Your task to perform on an android device: Check the news Image 0: 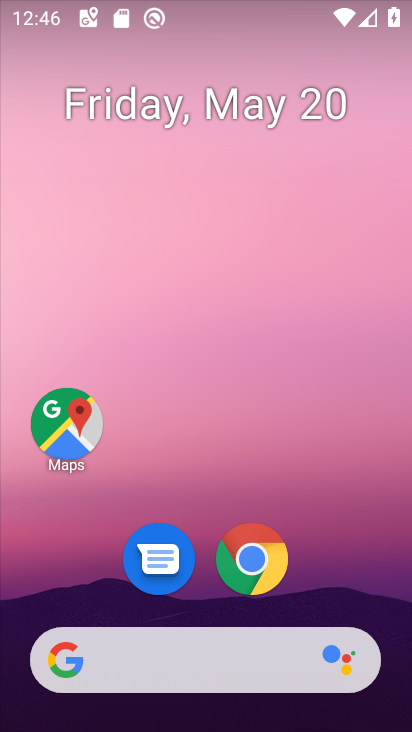
Step 0: drag from (316, 546) to (367, 99)
Your task to perform on an android device: Check the news Image 1: 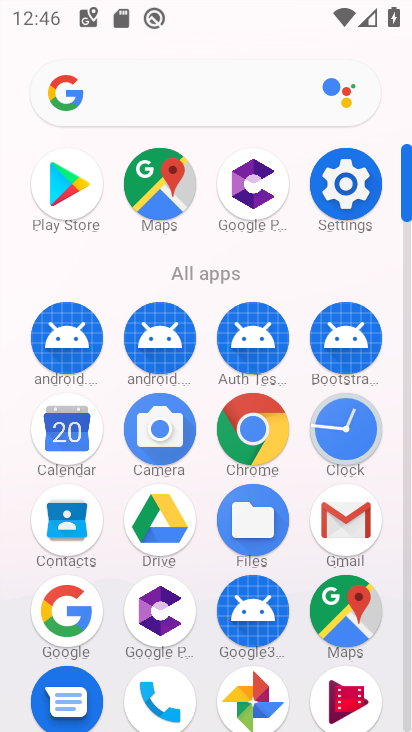
Step 1: click (51, 625)
Your task to perform on an android device: Check the news Image 2: 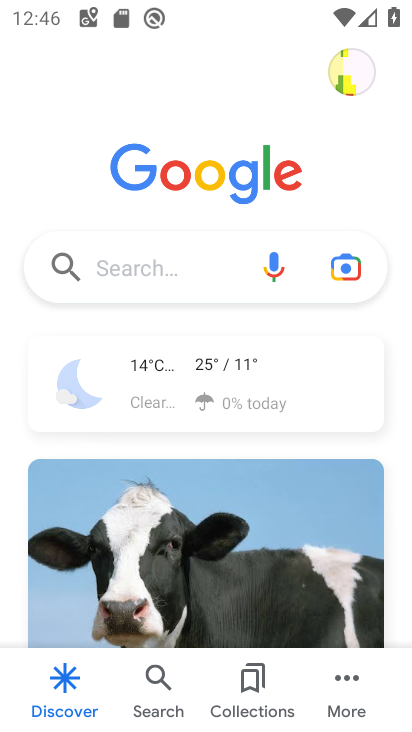
Step 2: click (191, 274)
Your task to perform on an android device: Check the news Image 3: 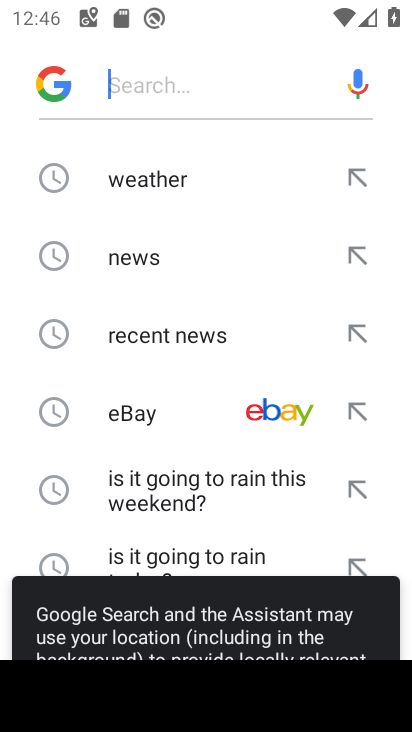
Step 3: click (166, 258)
Your task to perform on an android device: Check the news Image 4: 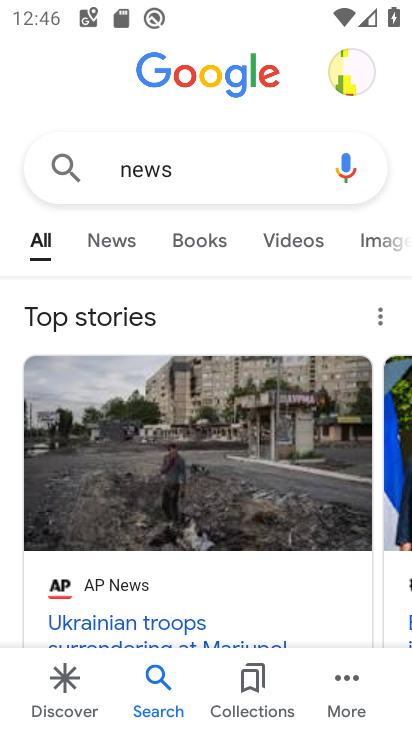
Step 4: task complete